Your task to perform on an android device: turn off smart reply in the gmail app Image 0: 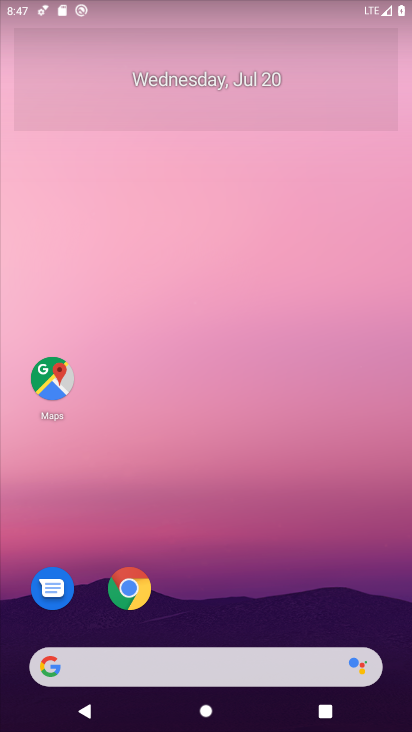
Step 0: drag from (211, 619) to (279, 15)
Your task to perform on an android device: turn off smart reply in the gmail app Image 1: 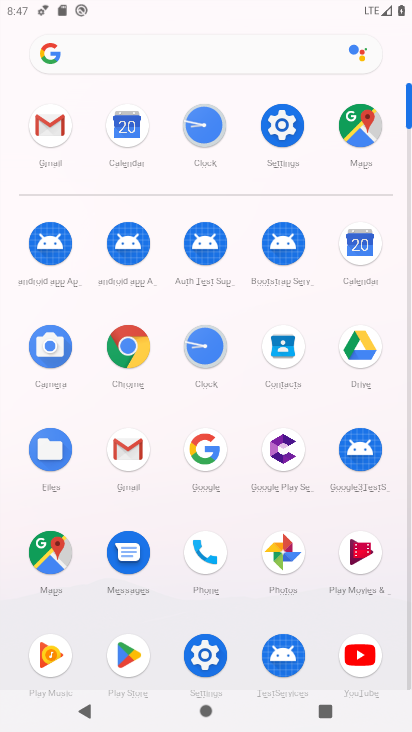
Step 1: click (125, 445)
Your task to perform on an android device: turn off smart reply in the gmail app Image 2: 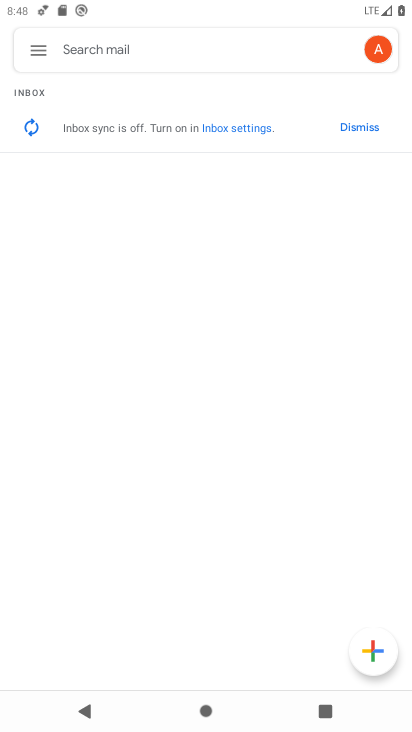
Step 2: click (355, 129)
Your task to perform on an android device: turn off smart reply in the gmail app Image 3: 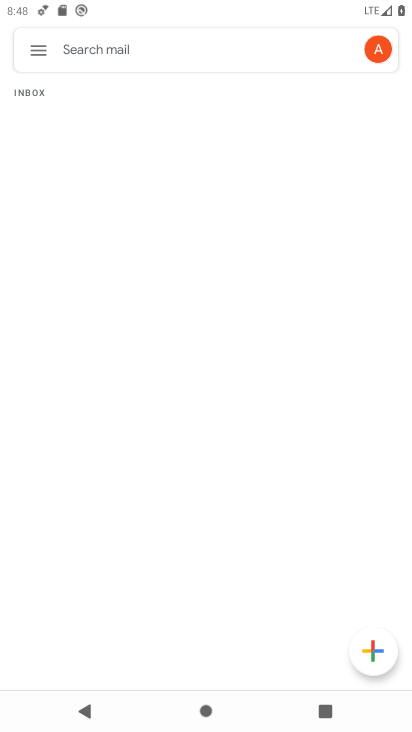
Step 3: click (119, 45)
Your task to perform on an android device: turn off smart reply in the gmail app Image 4: 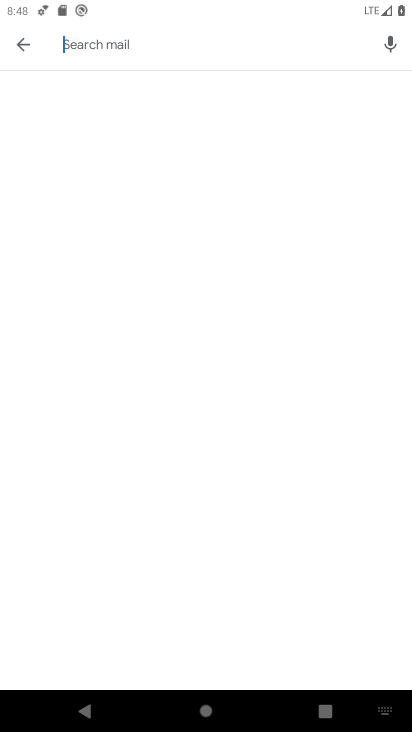
Step 4: click (27, 40)
Your task to perform on an android device: turn off smart reply in the gmail app Image 5: 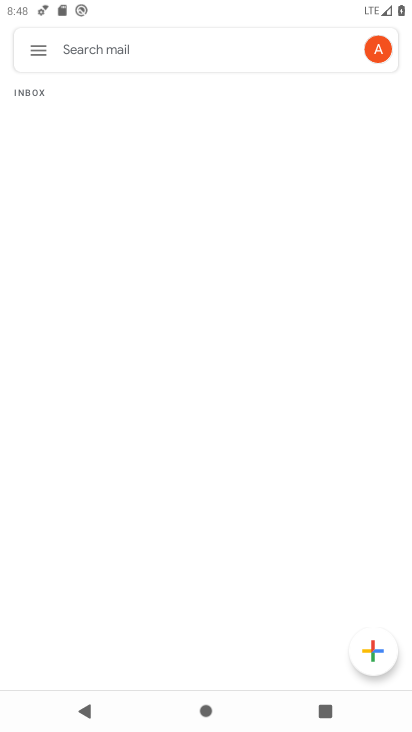
Step 5: click (42, 42)
Your task to perform on an android device: turn off smart reply in the gmail app Image 6: 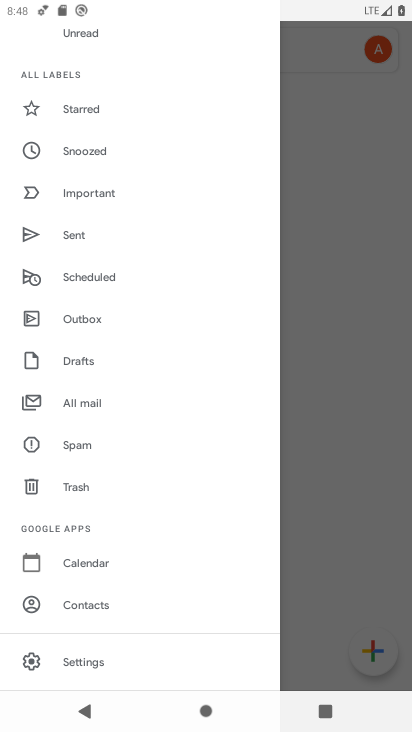
Step 6: click (109, 661)
Your task to perform on an android device: turn off smart reply in the gmail app Image 7: 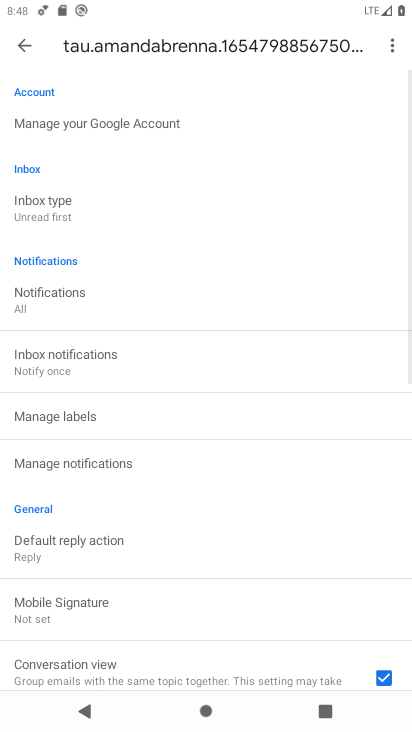
Step 7: drag from (124, 629) to (148, 219)
Your task to perform on an android device: turn off smart reply in the gmail app Image 8: 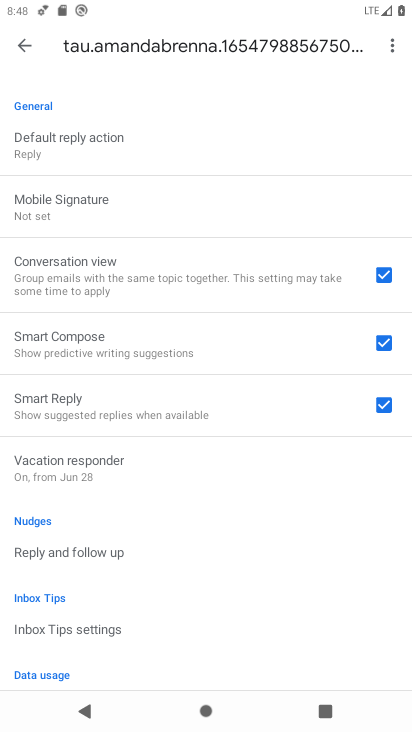
Step 8: click (382, 400)
Your task to perform on an android device: turn off smart reply in the gmail app Image 9: 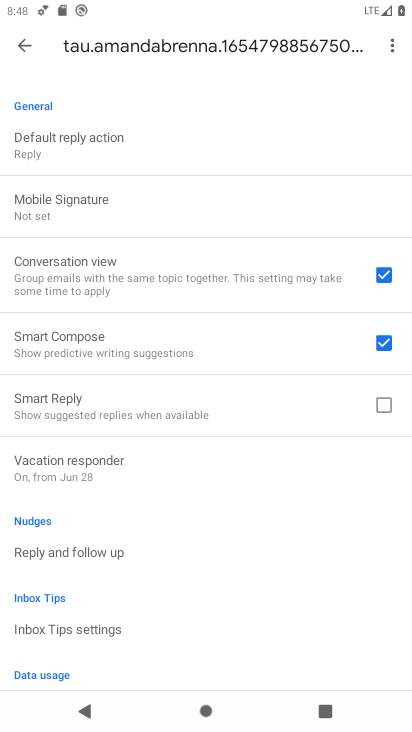
Step 9: task complete